Your task to perform on an android device: Open the web browser Image 0: 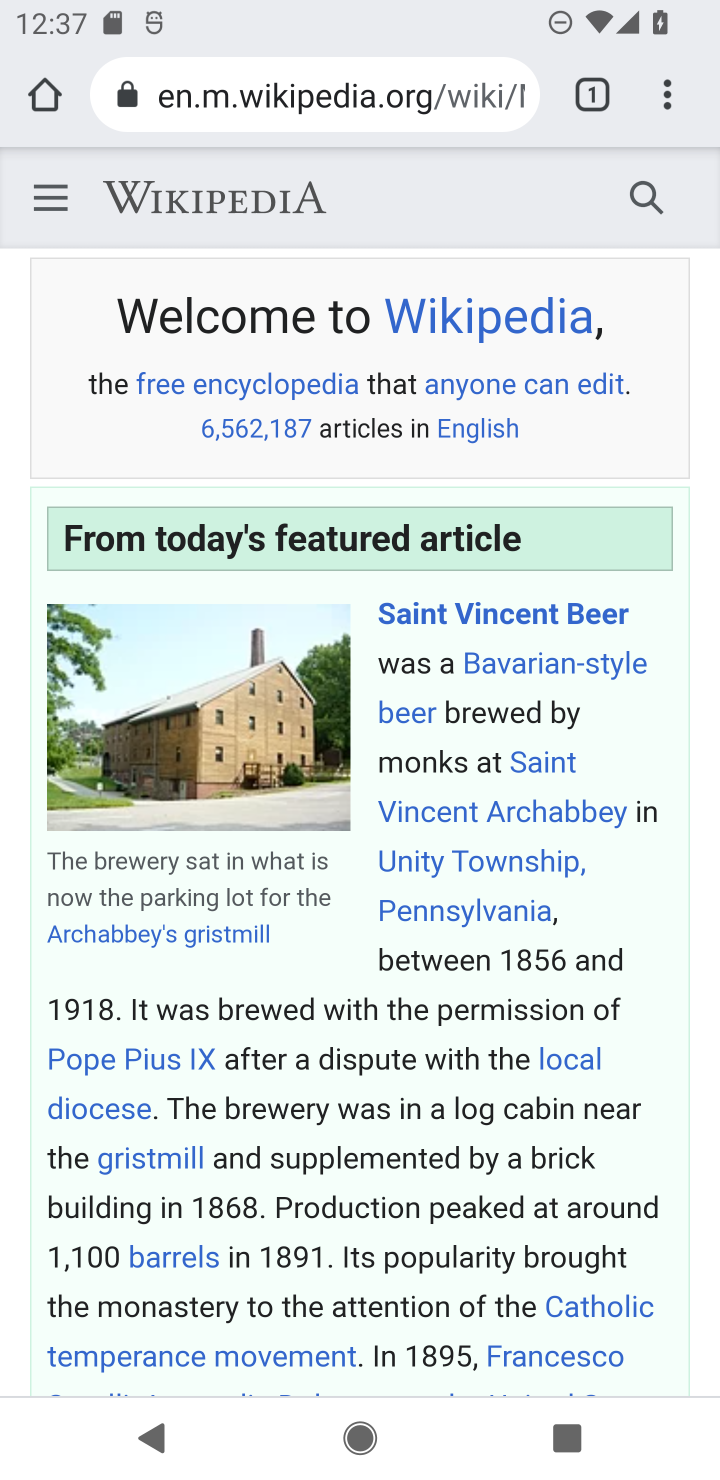
Step 0: press home button
Your task to perform on an android device: Open the web browser Image 1: 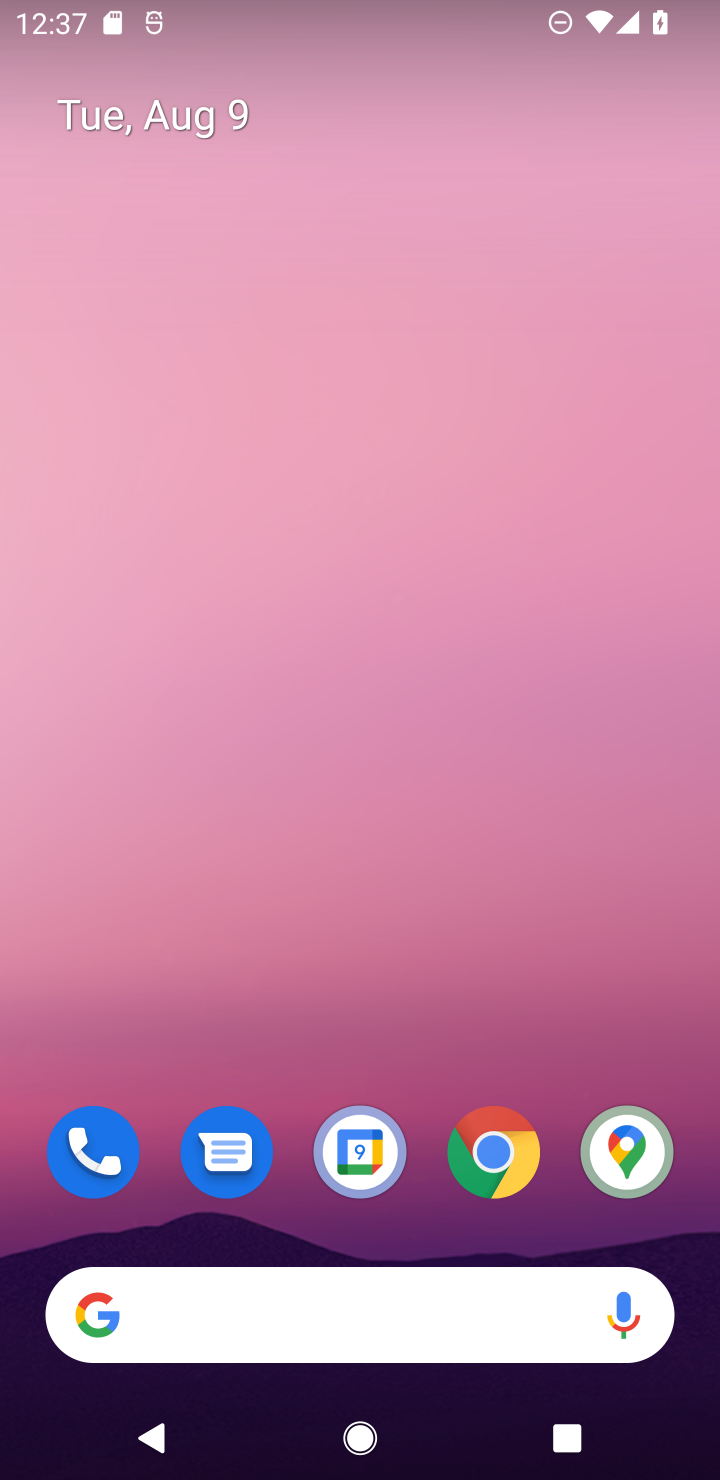
Step 1: click (496, 1144)
Your task to perform on an android device: Open the web browser Image 2: 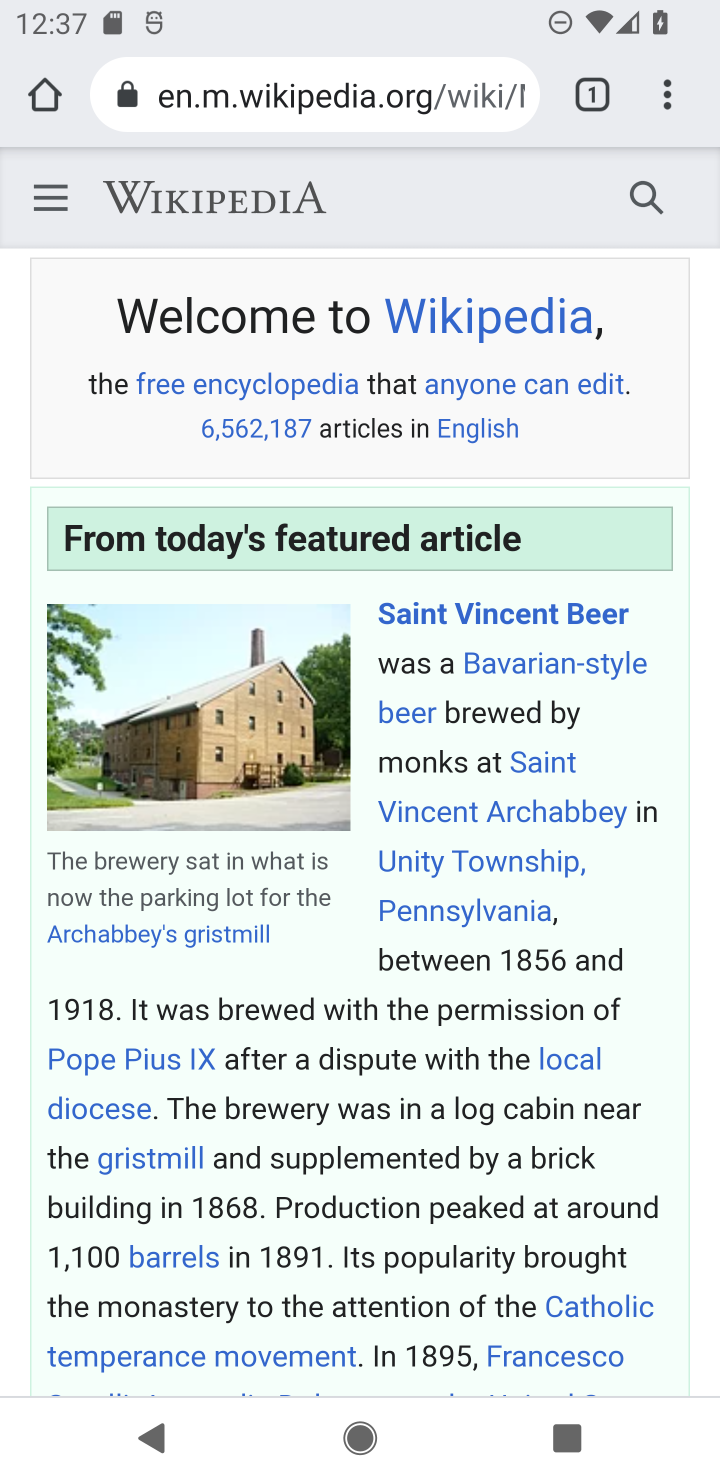
Step 2: task complete